Your task to perform on an android device: turn off sleep mode Image 0: 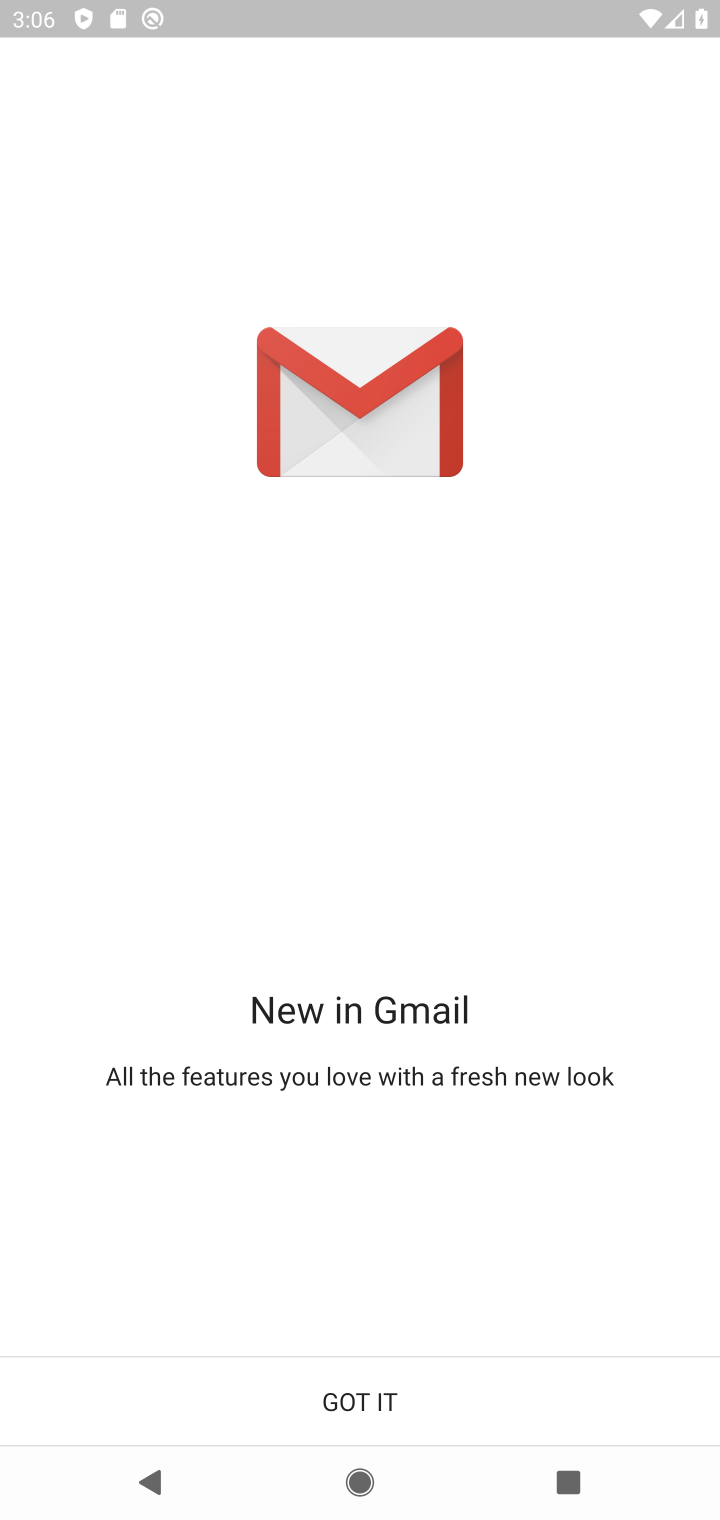
Step 0: press home button
Your task to perform on an android device: turn off sleep mode Image 1: 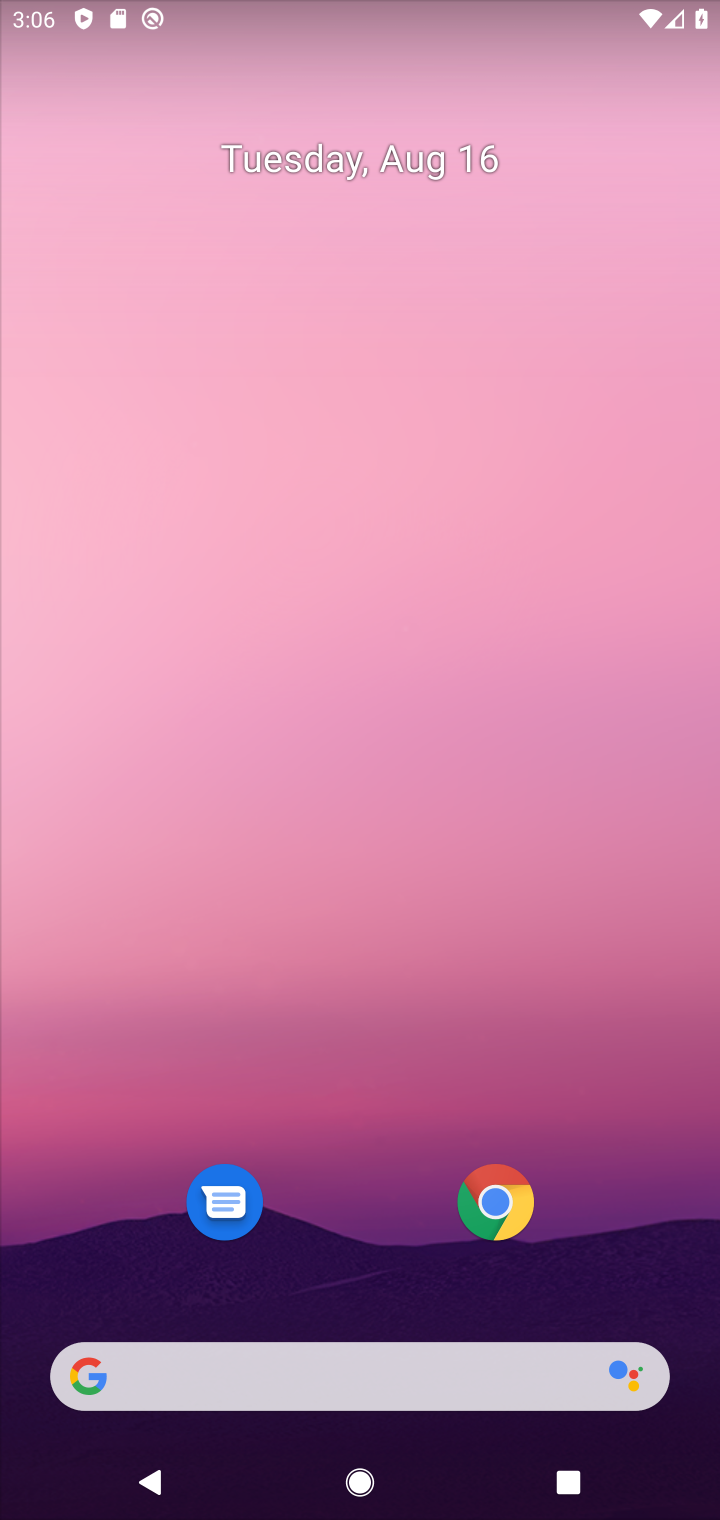
Step 1: drag from (426, 1073) to (404, 278)
Your task to perform on an android device: turn off sleep mode Image 2: 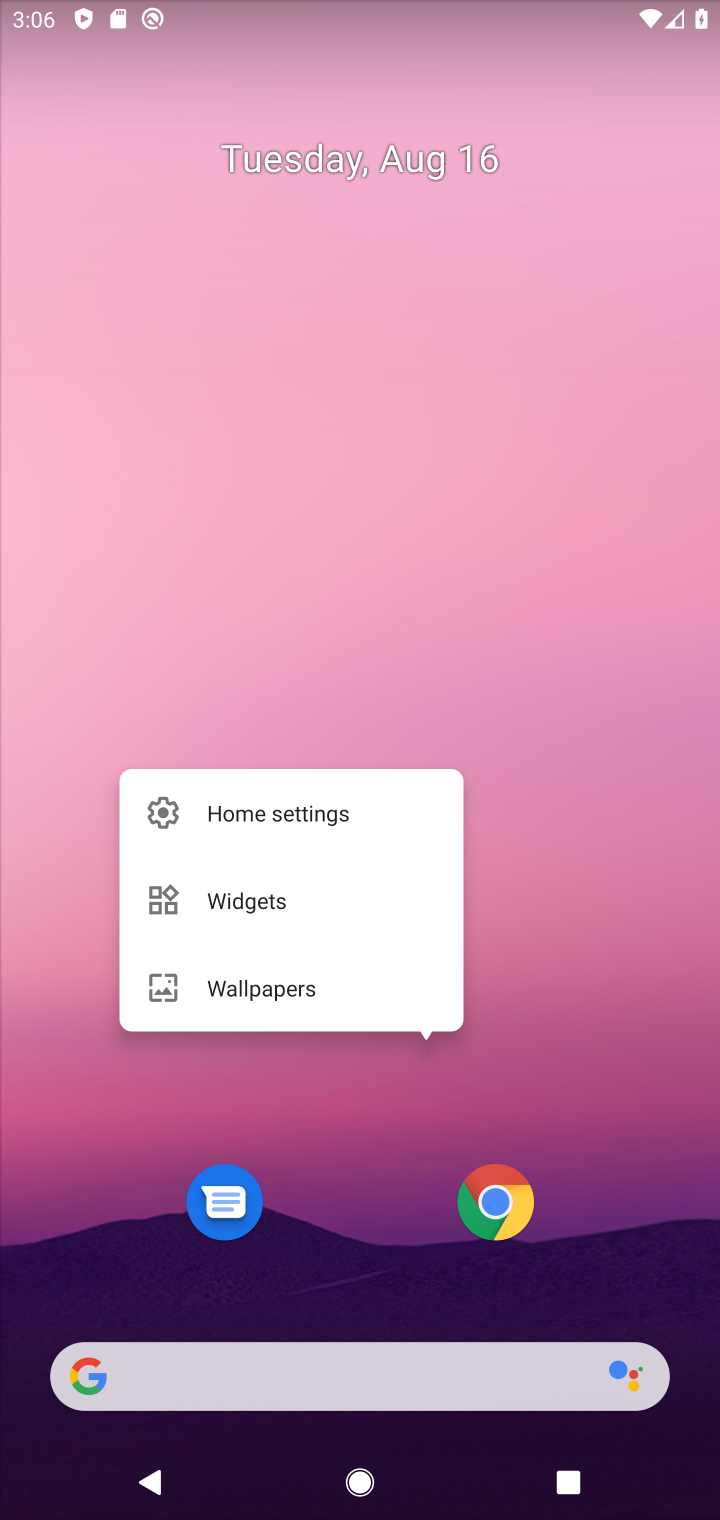
Step 2: click (591, 778)
Your task to perform on an android device: turn off sleep mode Image 3: 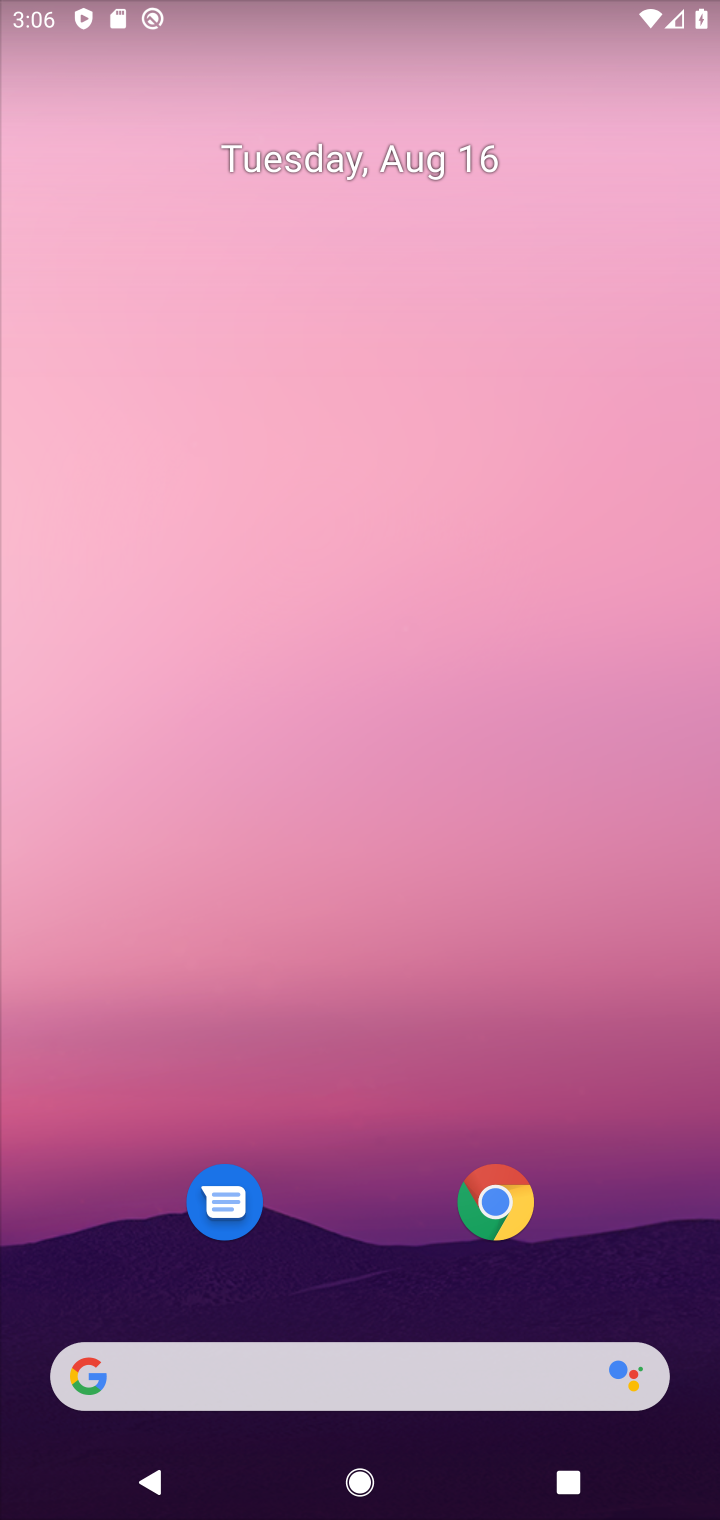
Step 3: drag from (450, 655) to (475, 94)
Your task to perform on an android device: turn off sleep mode Image 4: 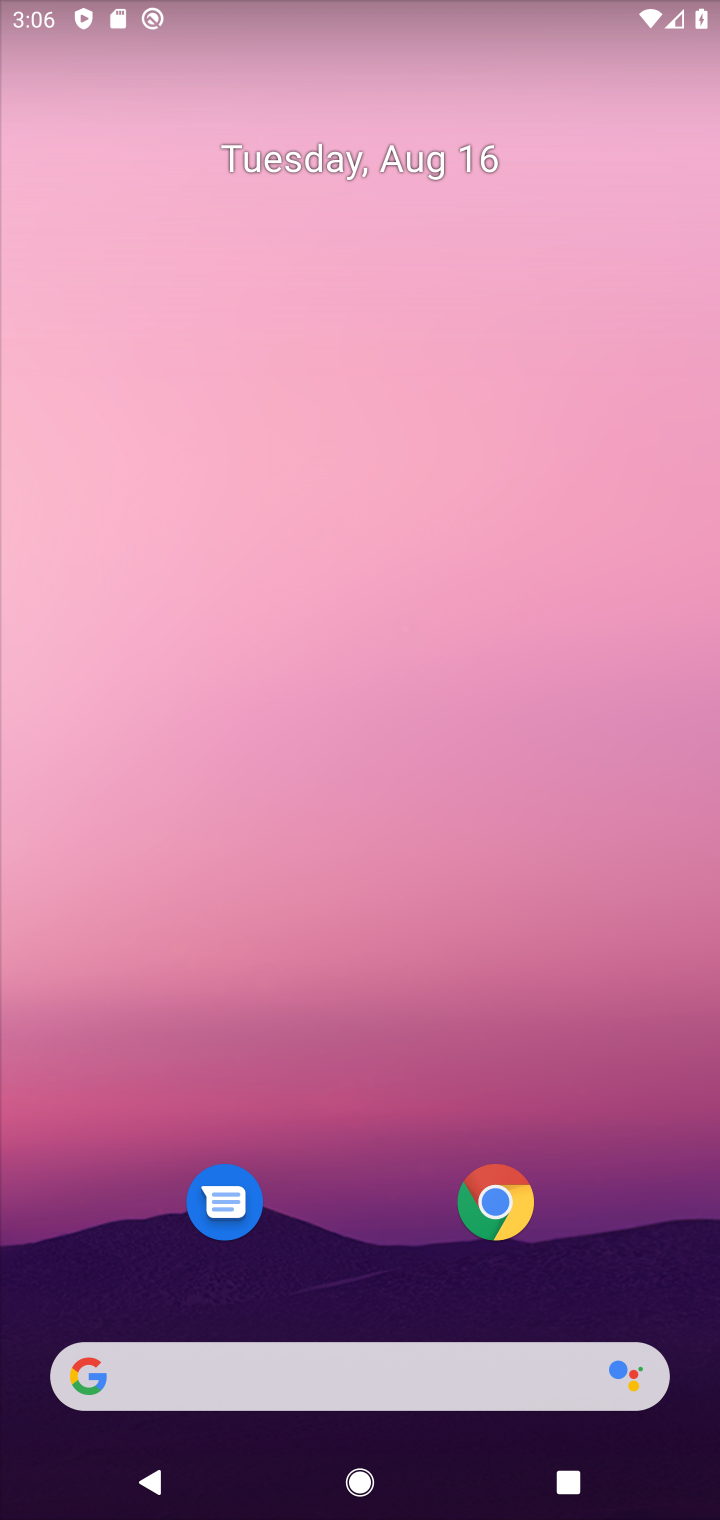
Step 4: drag from (324, 680) to (342, 43)
Your task to perform on an android device: turn off sleep mode Image 5: 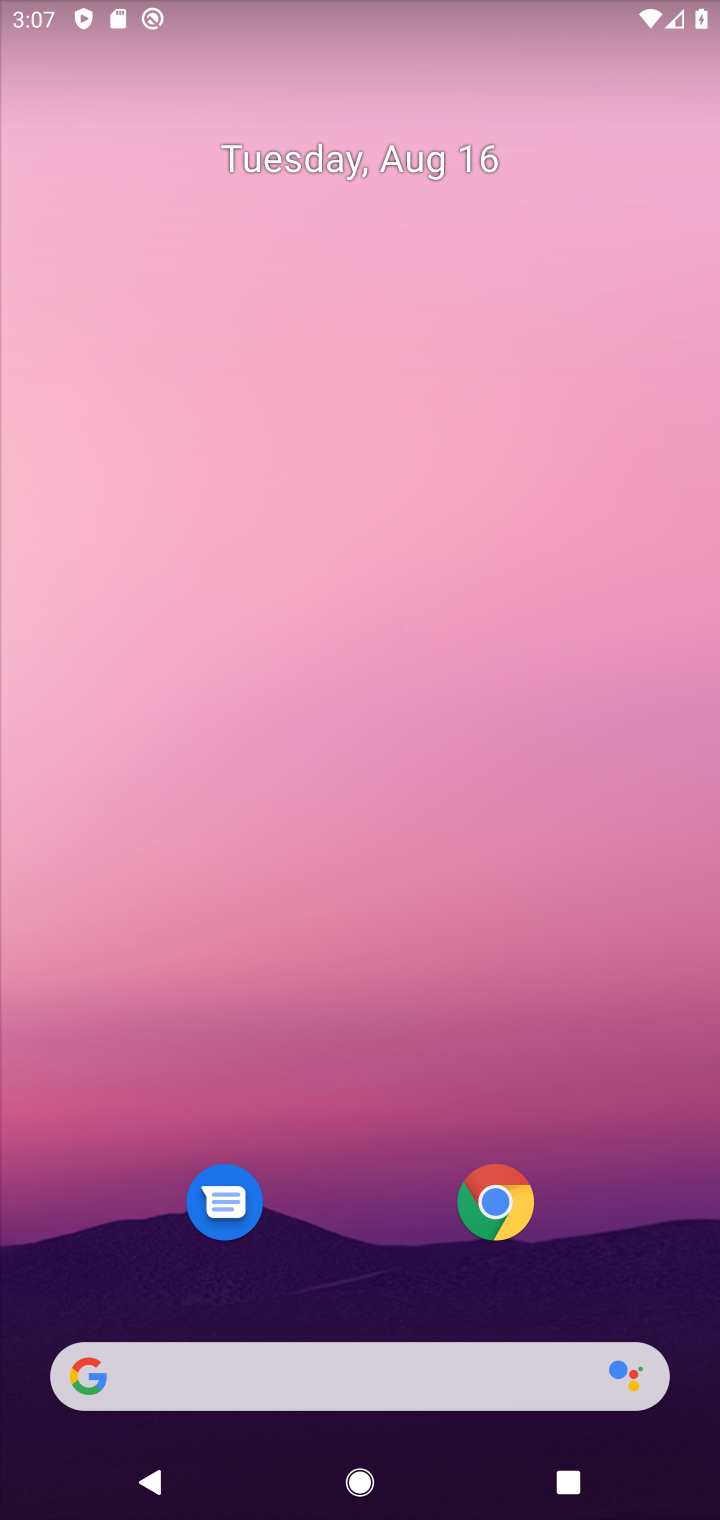
Step 5: drag from (314, 984) to (483, 0)
Your task to perform on an android device: turn off sleep mode Image 6: 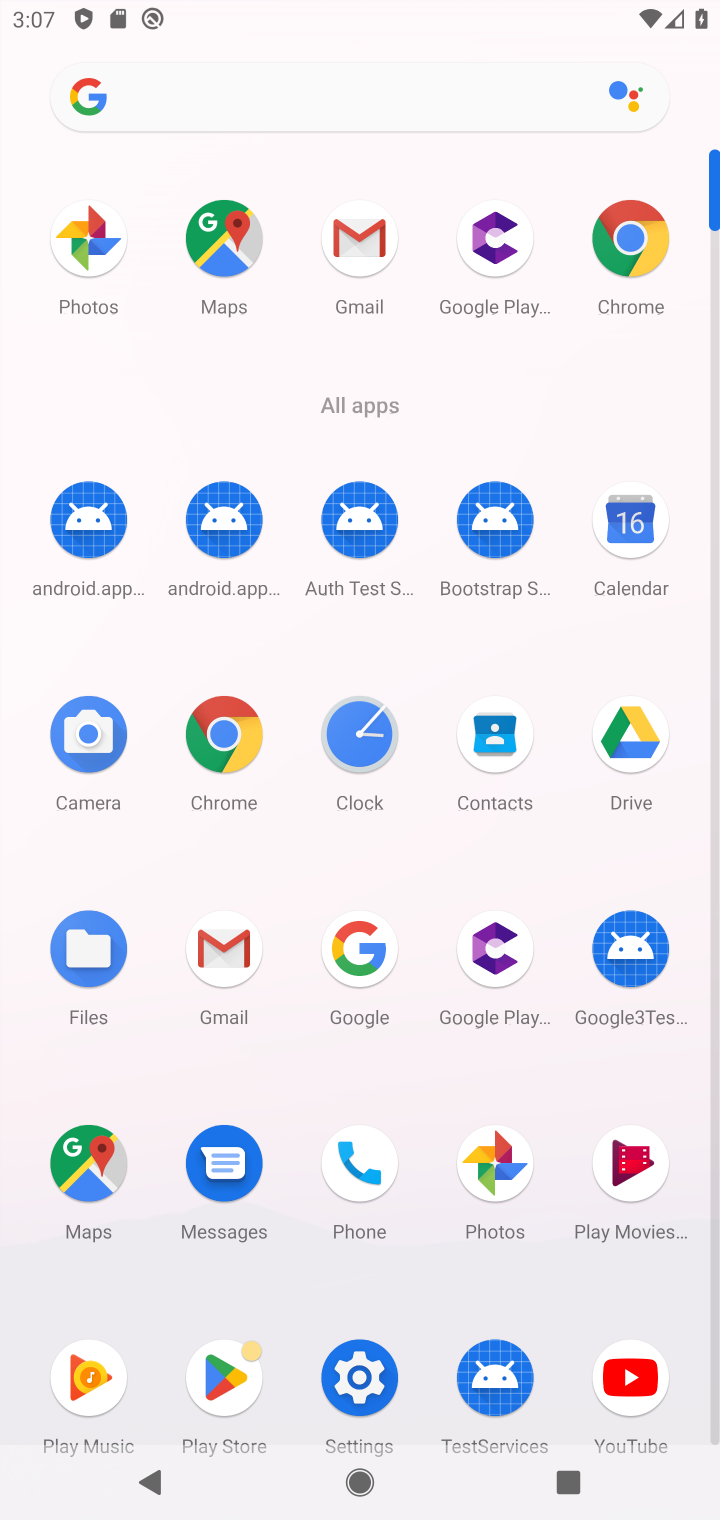
Step 6: drag from (435, 432) to (422, 27)
Your task to perform on an android device: turn off sleep mode Image 7: 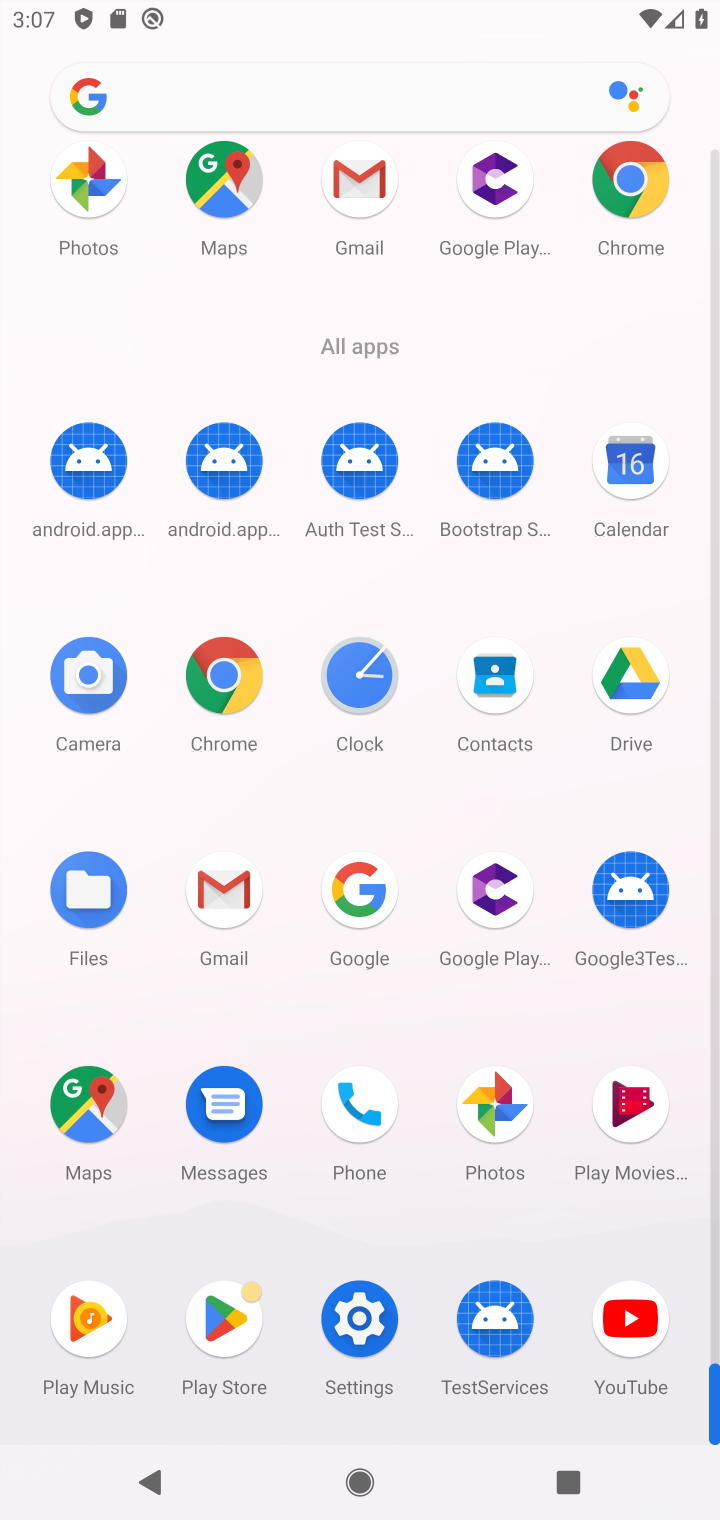
Step 7: click (365, 1349)
Your task to perform on an android device: turn off sleep mode Image 8: 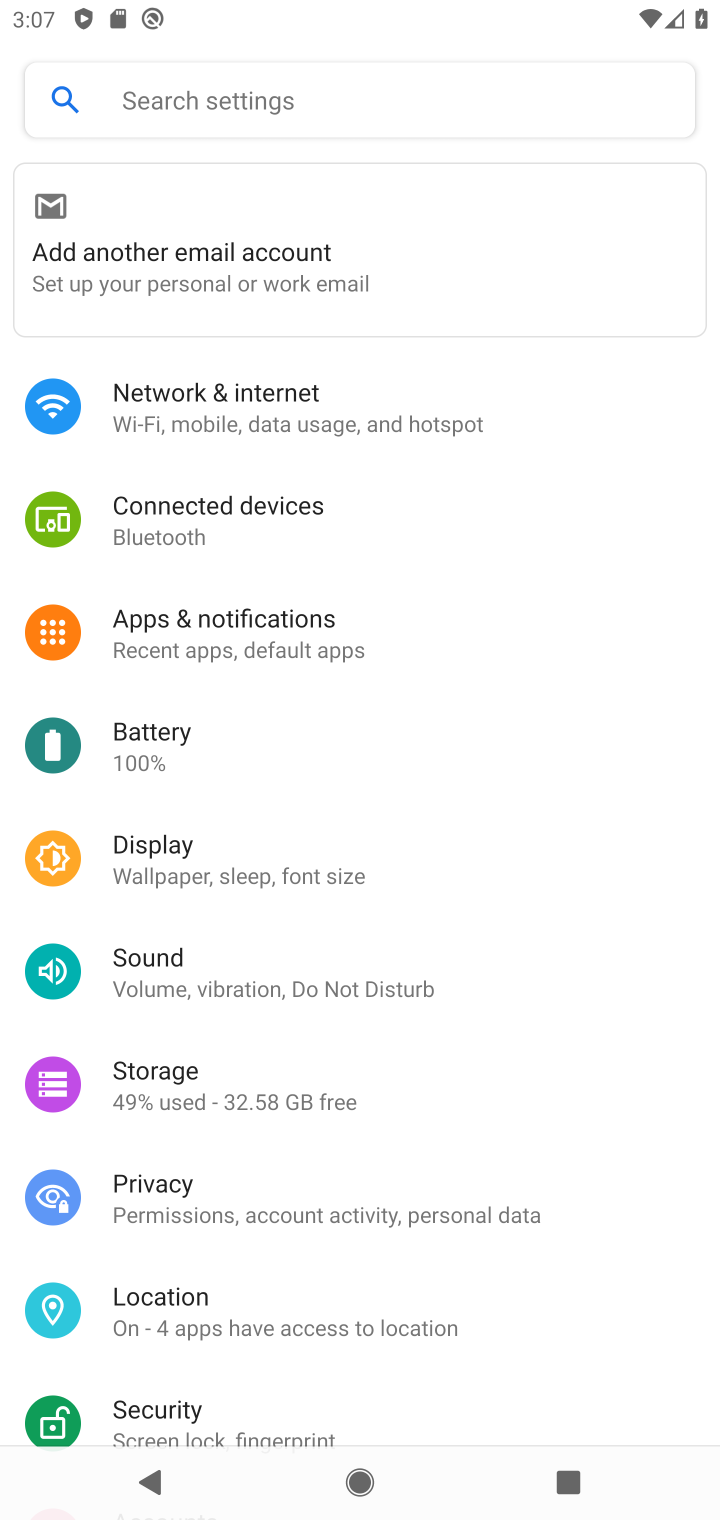
Step 8: task complete